Your task to perform on an android device: turn on notifications settings in the gmail app Image 0: 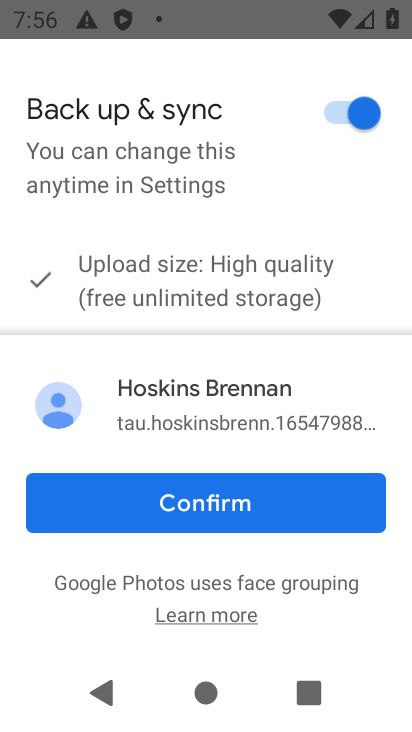
Step 0: press home button
Your task to perform on an android device: turn on notifications settings in the gmail app Image 1: 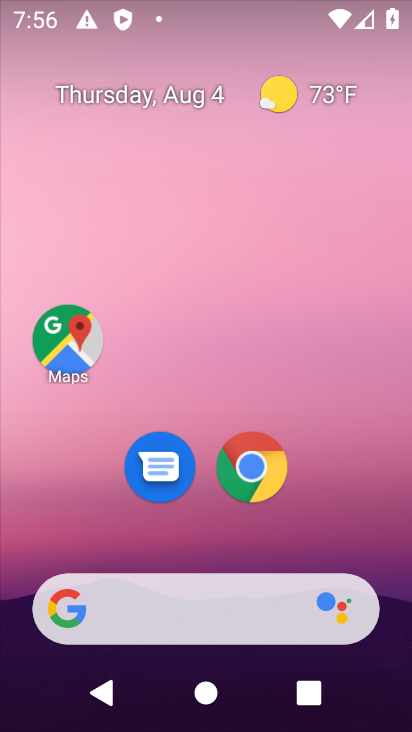
Step 1: drag from (302, 549) to (302, 72)
Your task to perform on an android device: turn on notifications settings in the gmail app Image 2: 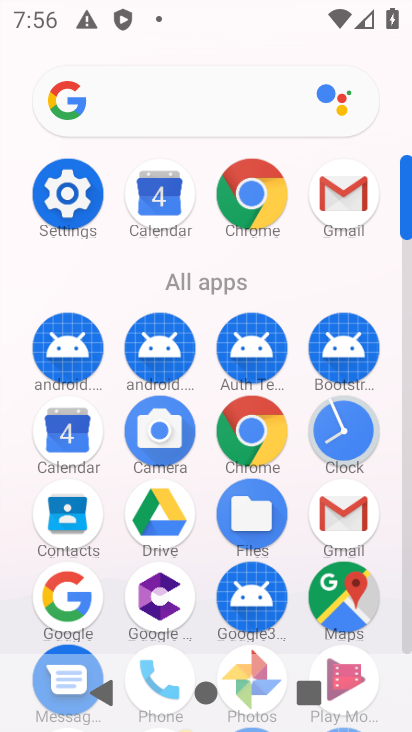
Step 2: click (345, 515)
Your task to perform on an android device: turn on notifications settings in the gmail app Image 3: 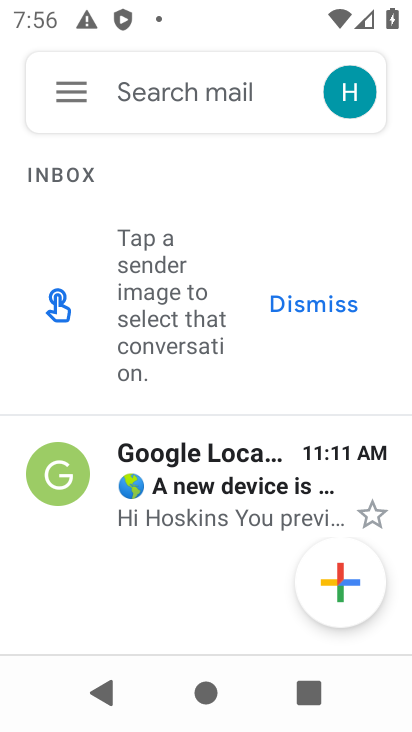
Step 3: press home button
Your task to perform on an android device: turn on notifications settings in the gmail app Image 4: 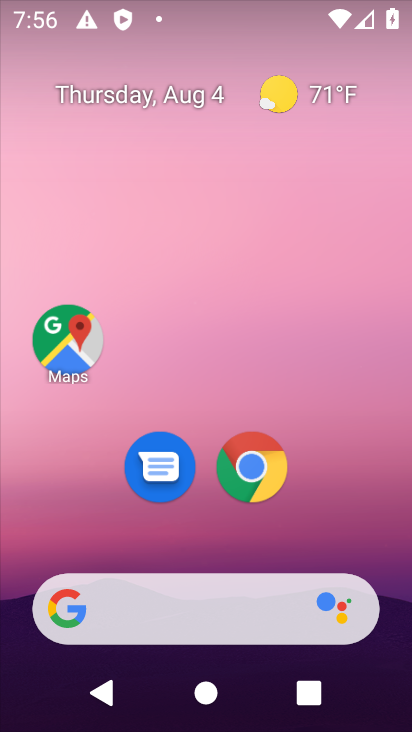
Step 4: drag from (303, 491) to (258, 37)
Your task to perform on an android device: turn on notifications settings in the gmail app Image 5: 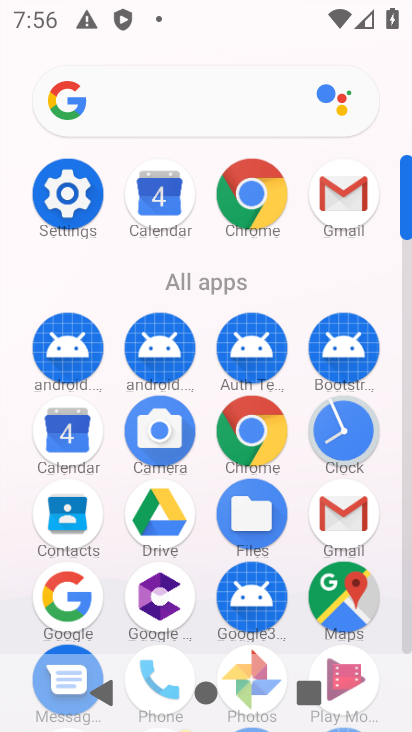
Step 5: click (354, 513)
Your task to perform on an android device: turn on notifications settings in the gmail app Image 6: 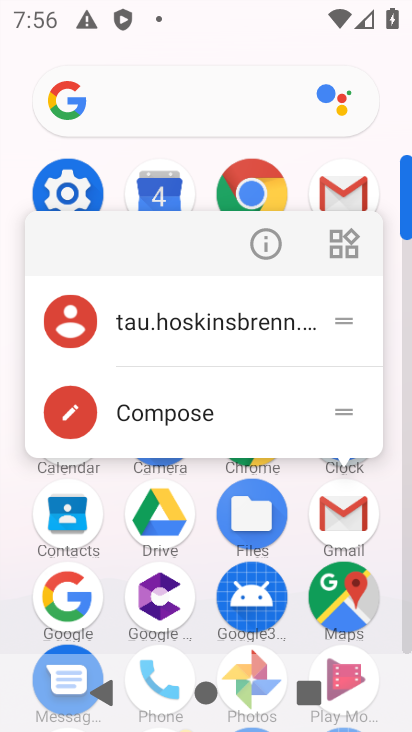
Step 6: click (270, 240)
Your task to perform on an android device: turn on notifications settings in the gmail app Image 7: 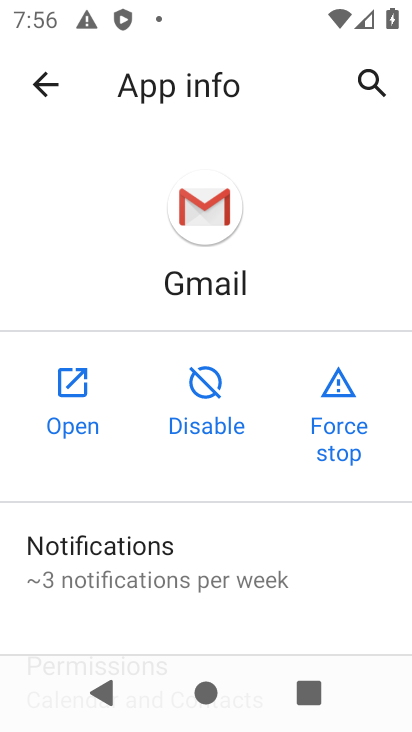
Step 7: click (94, 522)
Your task to perform on an android device: turn on notifications settings in the gmail app Image 8: 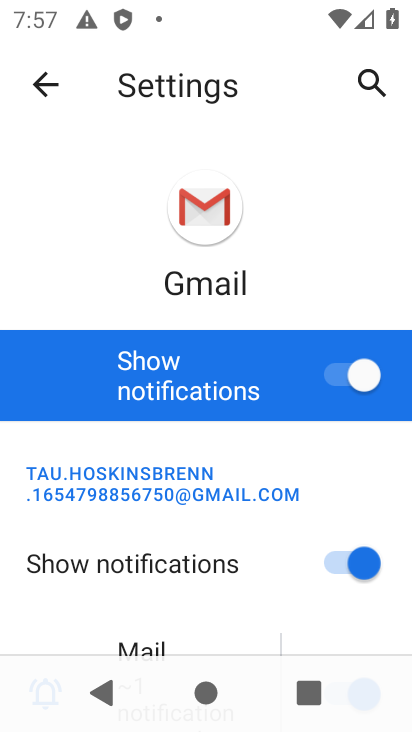
Step 8: task complete